Your task to perform on an android device: Clear the shopping cart on amazon. Image 0: 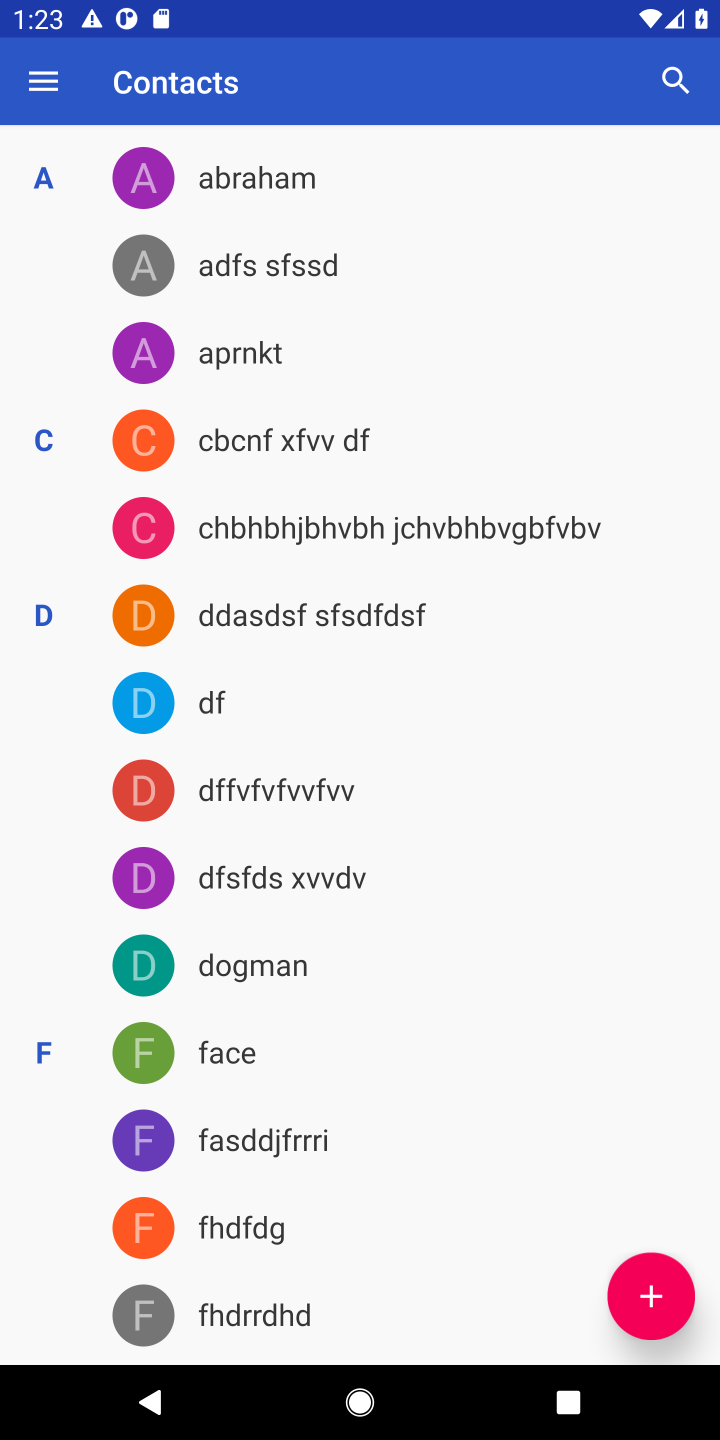
Step 0: press home button
Your task to perform on an android device: Clear the shopping cart on amazon. Image 1: 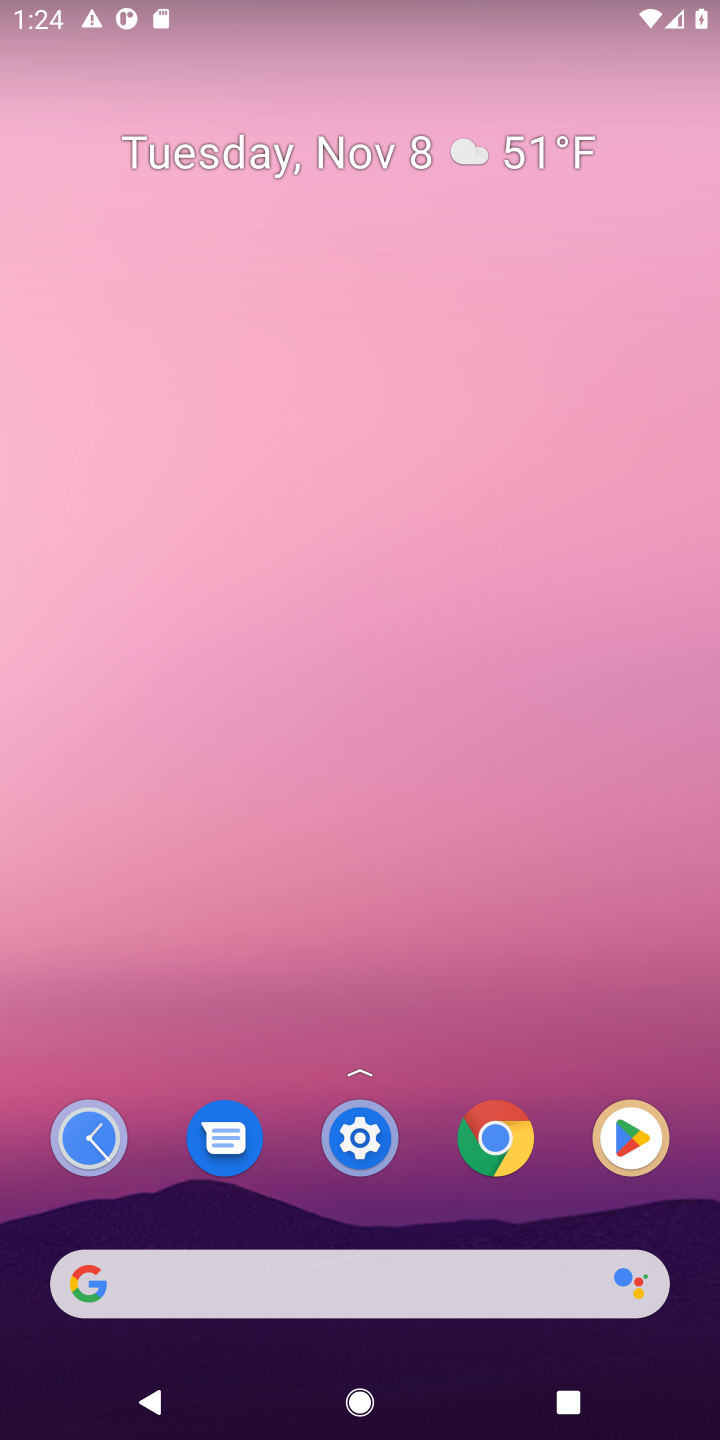
Step 1: click (397, 1266)
Your task to perform on an android device: Clear the shopping cart on amazon. Image 2: 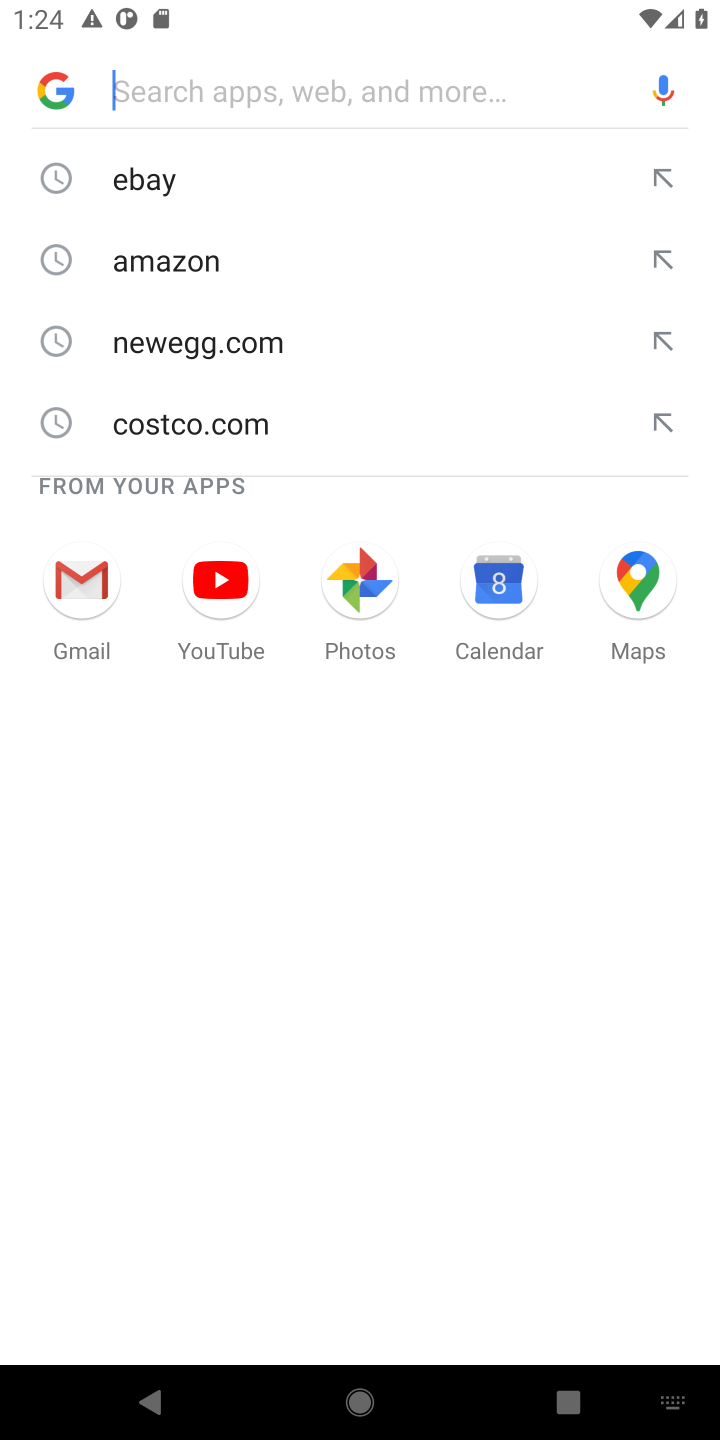
Step 2: type "amazon"
Your task to perform on an android device: Clear the shopping cart on amazon. Image 3: 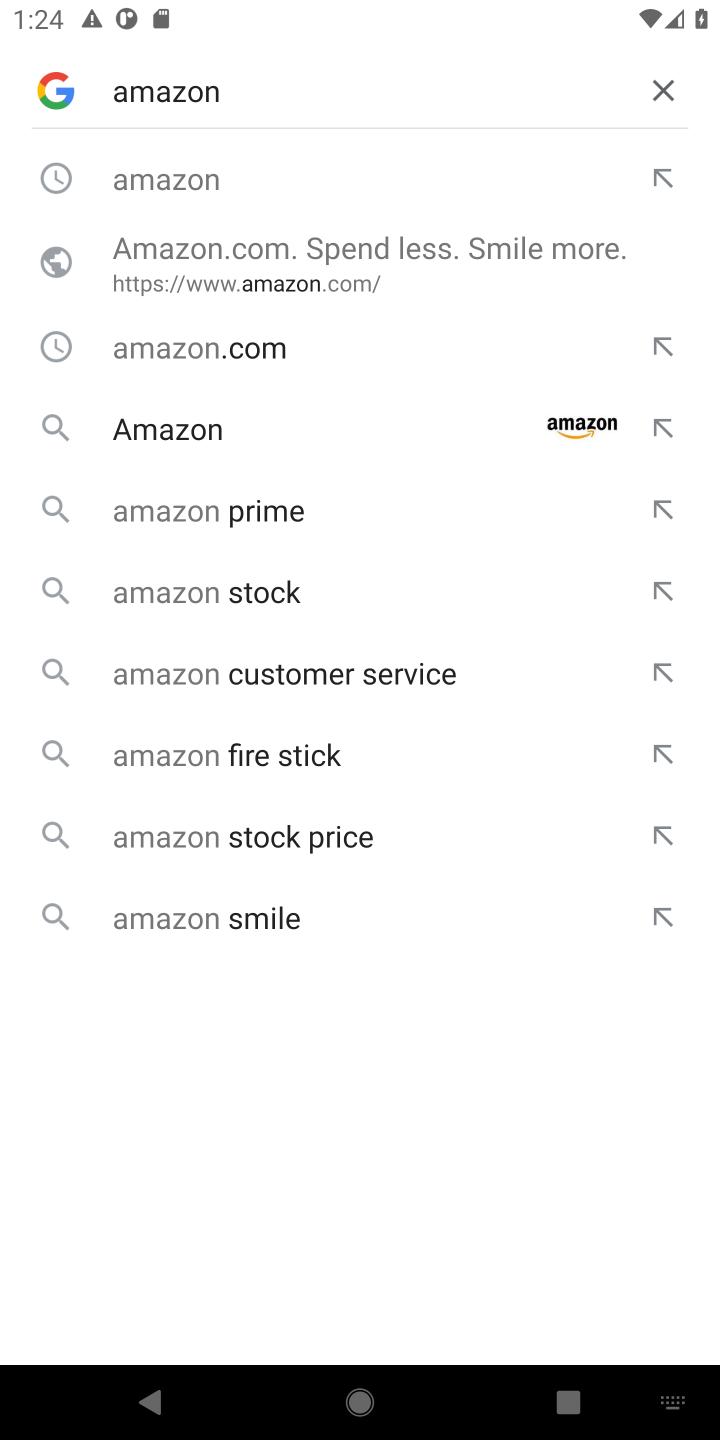
Step 3: click (201, 192)
Your task to perform on an android device: Clear the shopping cart on amazon. Image 4: 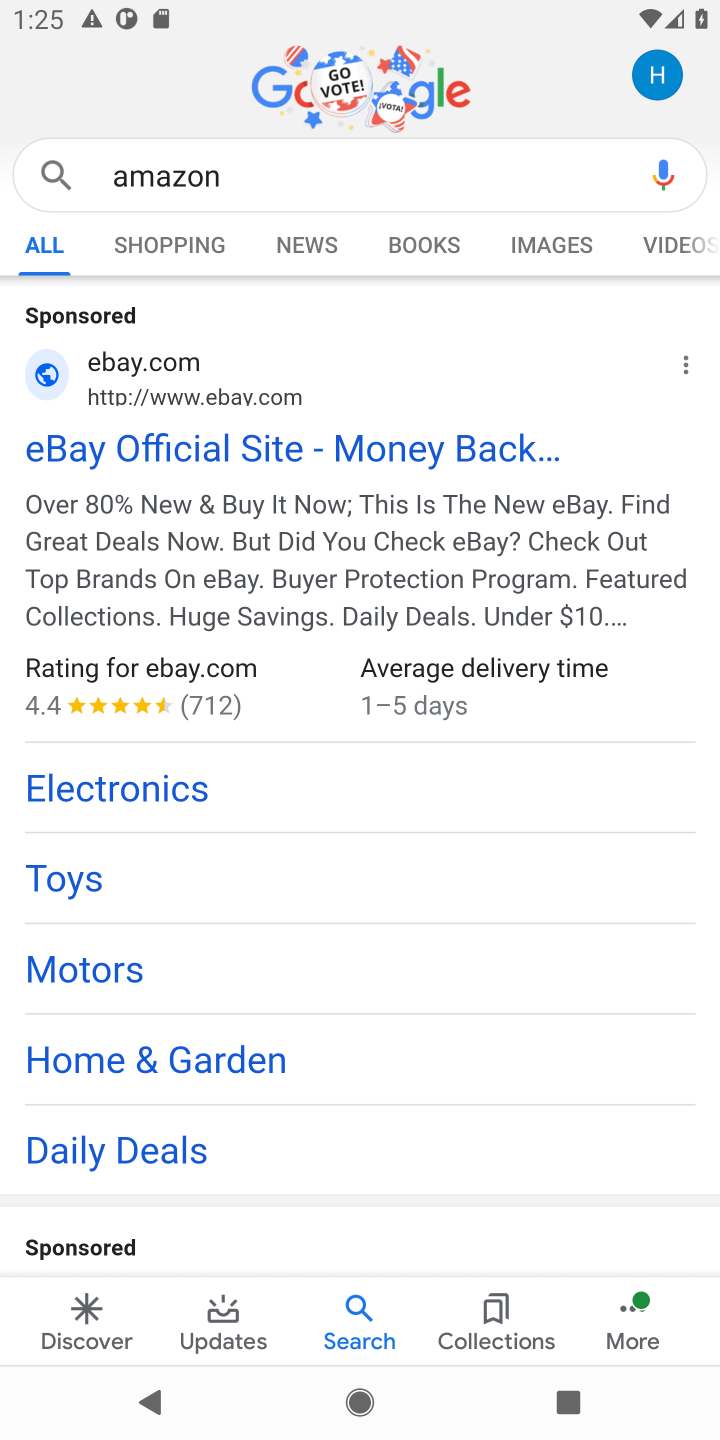
Step 4: click (241, 440)
Your task to perform on an android device: Clear the shopping cart on amazon. Image 5: 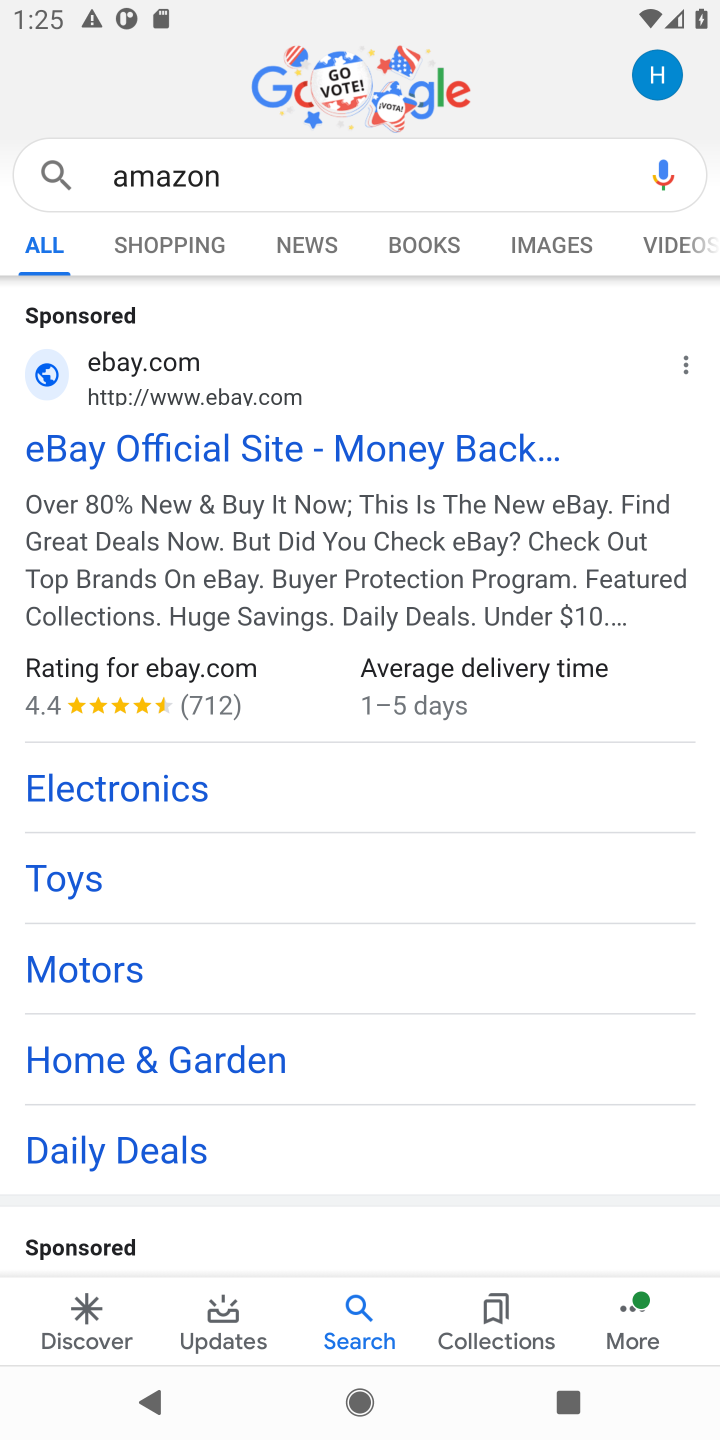
Step 5: task complete